Your task to perform on an android device: Open settings on Google Maps Image 0: 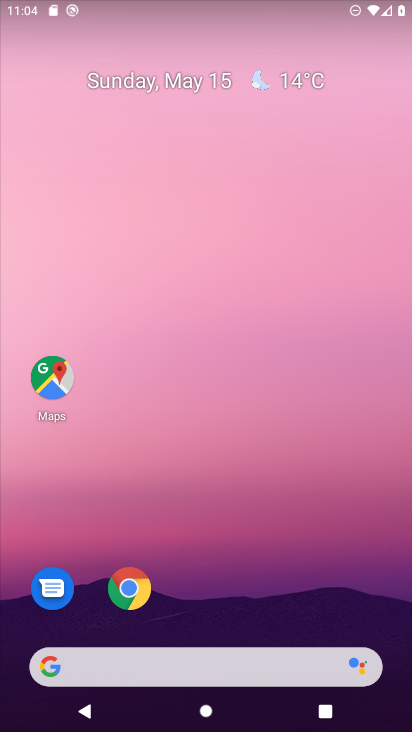
Step 0: drag from (237, 638) to (266, 224)
Your task to perform on an android device: Open settings on Google Maps Image 1: 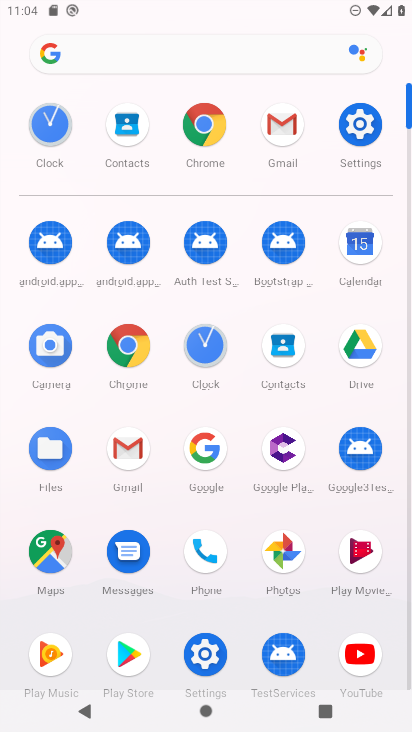
Step 1: click (61, 557)
Your task to perform on an android device: Open settings on Google Maps Image 2: 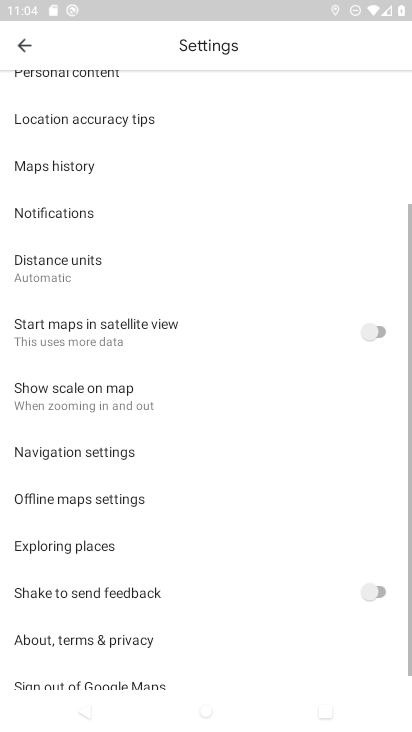
Step 2: click (30, 53)
Your task to perform on an android device: Open settings on Google Maps Image 3: 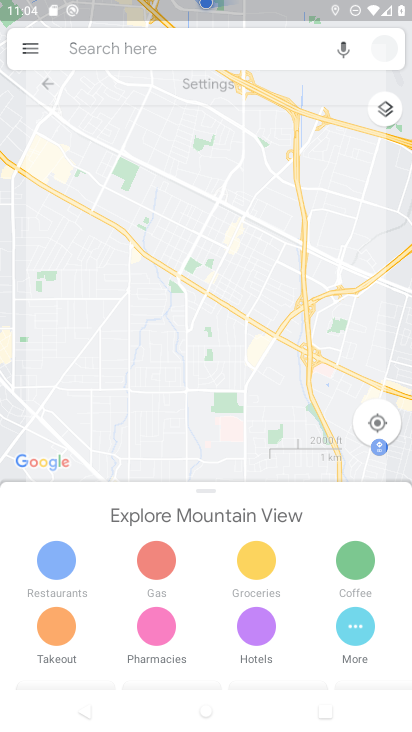
Step 3: drag from (254, 300) to (257, 251)
Your task to perform on an android device: Open settings on Google Maps Image 4: 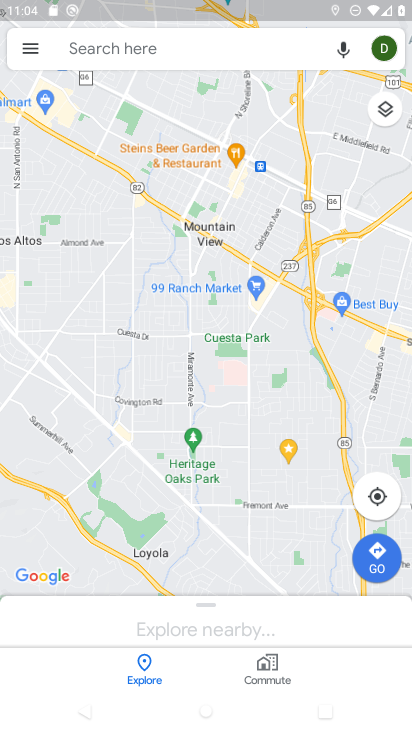
Step 4: click (28, 39)
Your task to perform on an android device: Open settings on Google Maps Image 5: 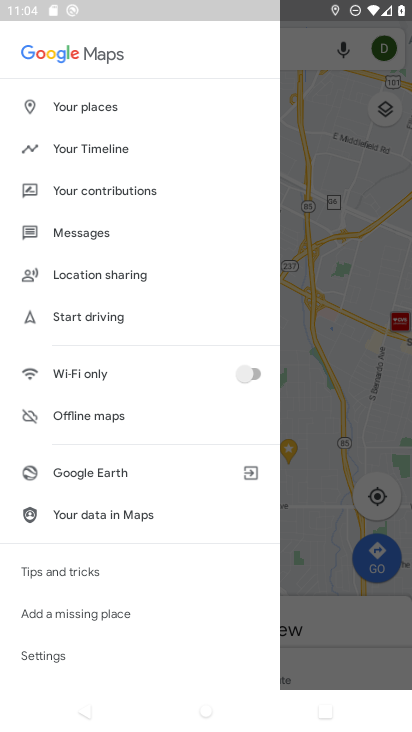
Step 5: drag from (94, 530) to (117, 403)
Your task to perform on an android device: Open settings on Google Maps Image 6: 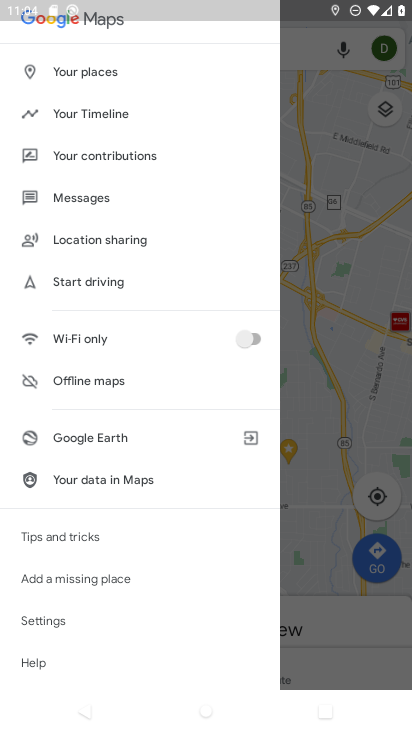
Step 6: click (45, 651)
Your task to perform on an android device: Open settings on Google Maps Image 7: 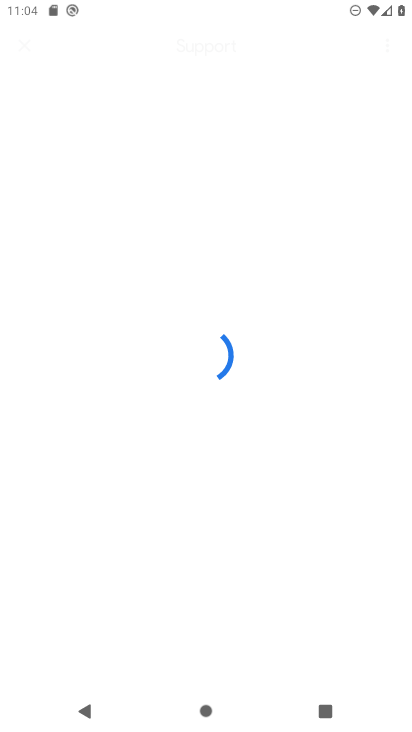
Step 7: press back button
Your task to perform on an android device: Open settings on Google Maps Image 8: 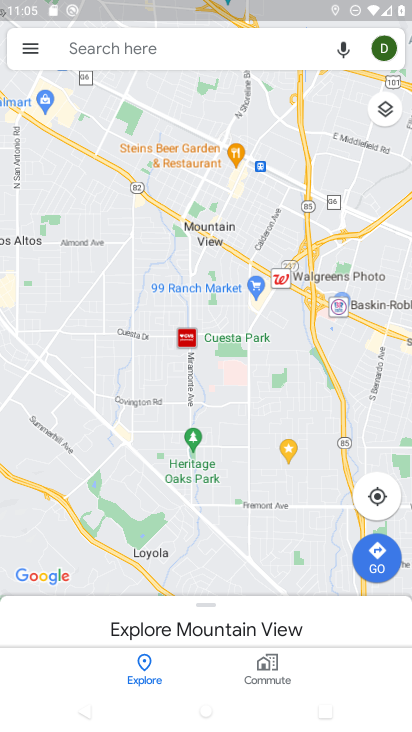
Step 8: click (28, 43)
Your task to perform on an android device: Open settings on Google Maps Image 9: 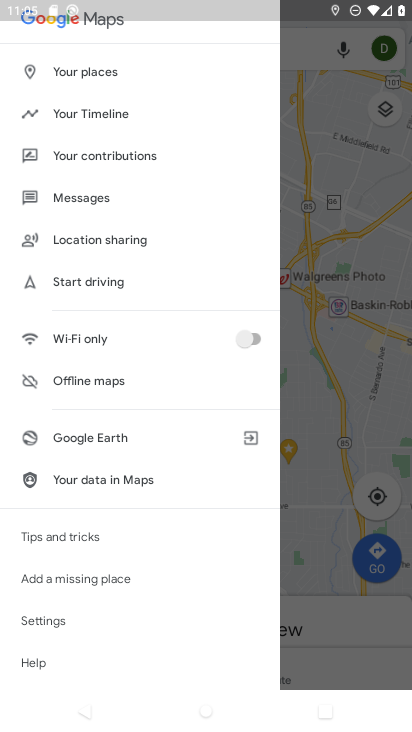
Step 9: click (41, 618)
Your task to perform on an android device: Open settings on Google Maps Image 10: 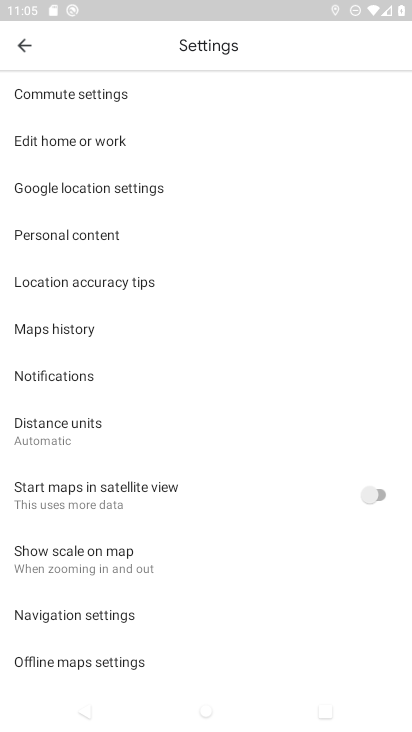
Step 10: task complete